Your task to perform on an android device: Show me productivity apps on the Play Store Image 0: 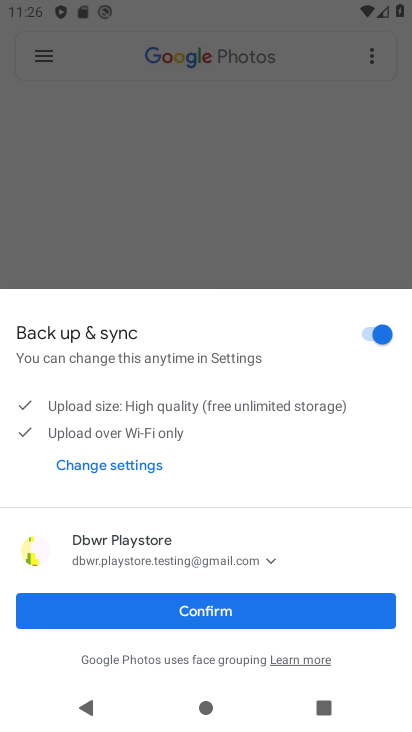
Step 0: press home button
Your task to perform on an android device: Show me productivity apps on the Play Store Image 1: 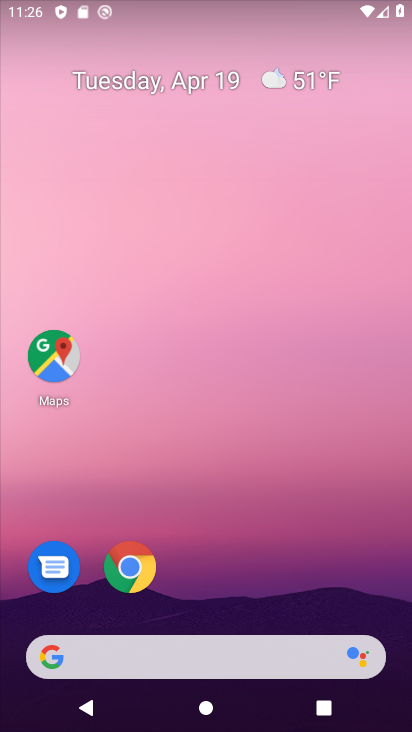
Step 1: drag from (201, 599) to (306, 79)
Your task to perform on an android device: Show me productivity apps on the Play Store Image 2: 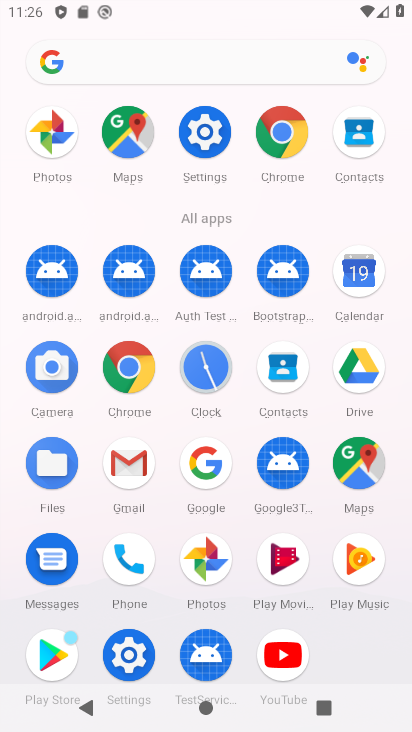
Step 2: click (52, 649)
Your task to perform on an android device: Show me productivity apps on the Play Store Image 3: 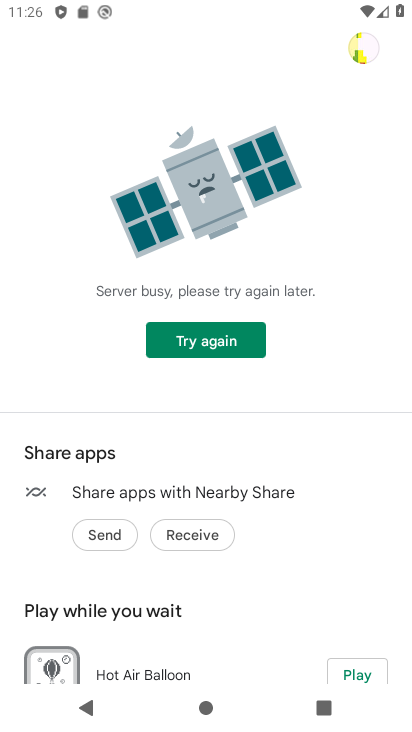
Step 3: click (240, 345)
Your task to perform on an android device: Show me productivity apps on the Play Store Image 4: 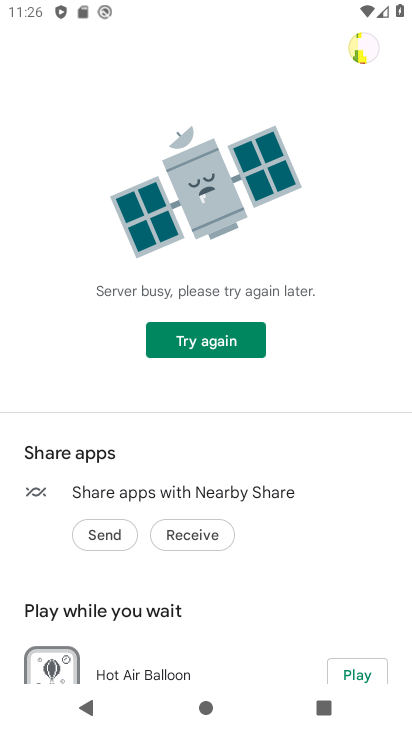
Step 4: click (240, 345)
Your task to perform on an android device: Show me productivity apps on the Play Store Image 5: 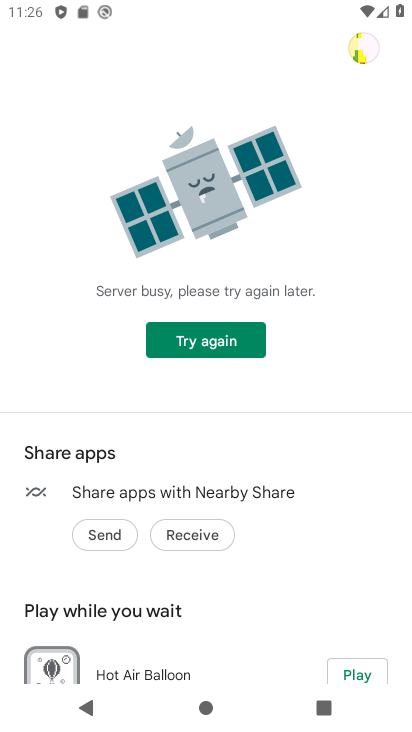
Step 5: task complete